Your task to perform on an android device: Open Google Maps Image 0: 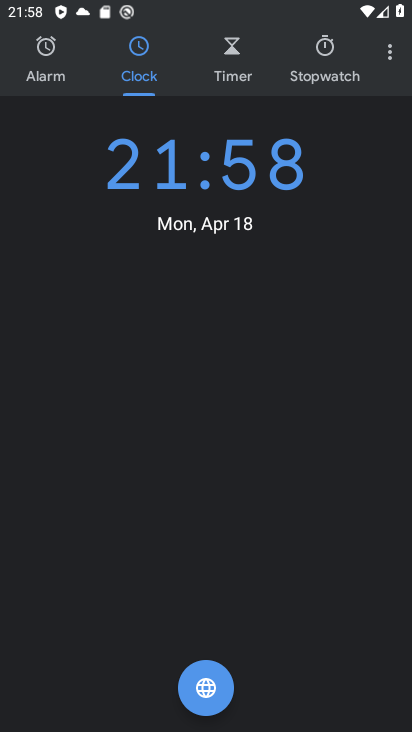
Step 0: press home button
Your task to perform on an android device: Open Google Maps Image 1: 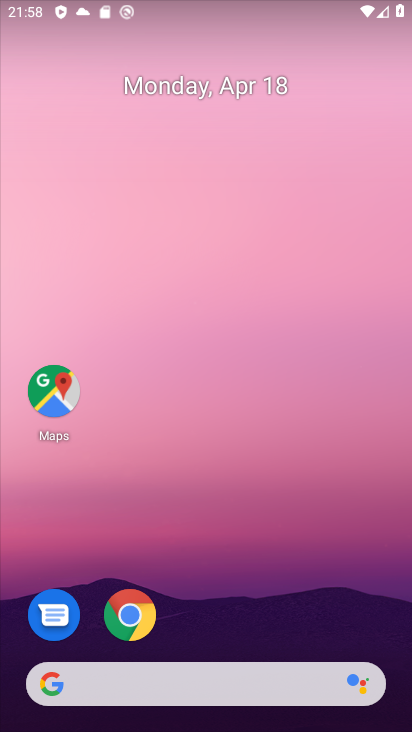
Step 1: click (55, 392)
Your task to perform on an android device: Open Google Maps Image 2: 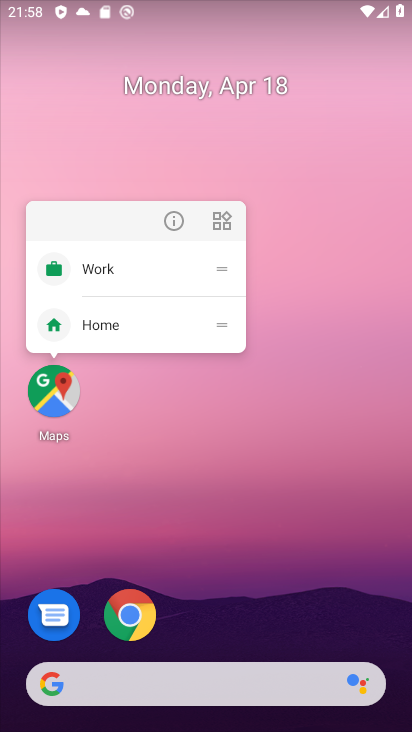
Step 2: click (55, 392)
Your task to perform on an android device: Open Google Maps Image 3: 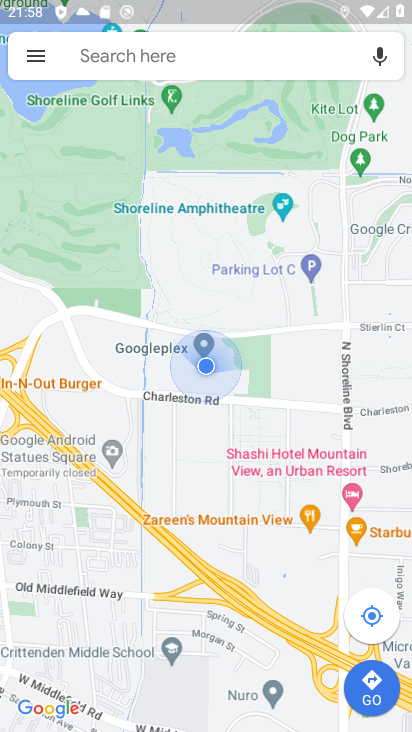
Step 3: task complete